Your task to perform on an android device: toggle pop-ups in chrome Image 0: 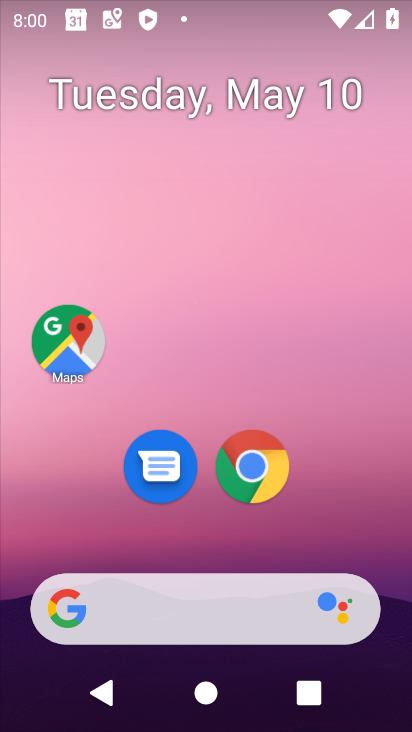
Step 0: click (243, 465)
Your task to perform on an android device: toggle pop-ups in chrome Image 1: 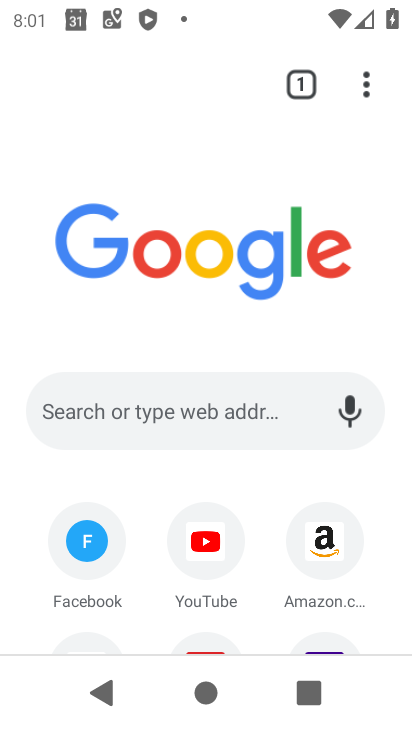
Step 1: click (363, 86)
Your task to perform on an android device: toggle pop-ups in chrome Image 2: 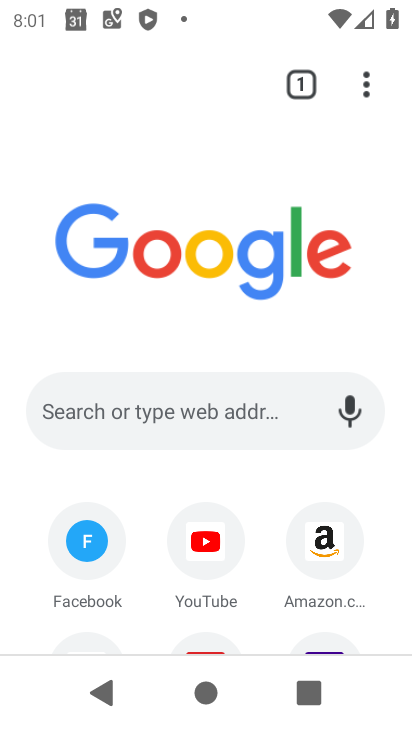
Step 2: click (363, 86)
Your task to perform on an android device: toggle pop-ups in chrome Image 3: 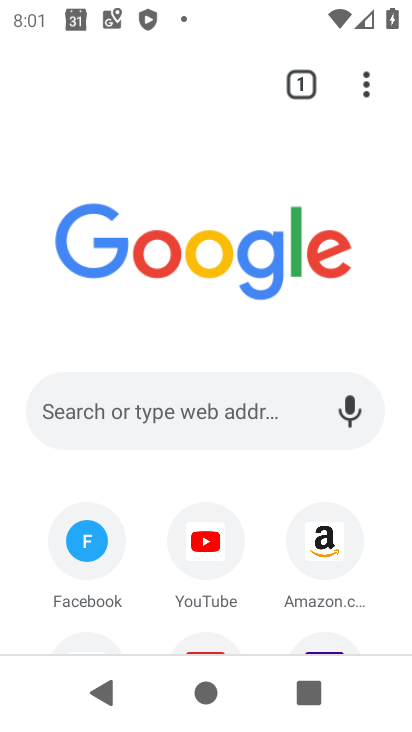
Step 3: click (397, 79)
Your task to perform on an android device: toggle pop-ups in chrome Image 4: 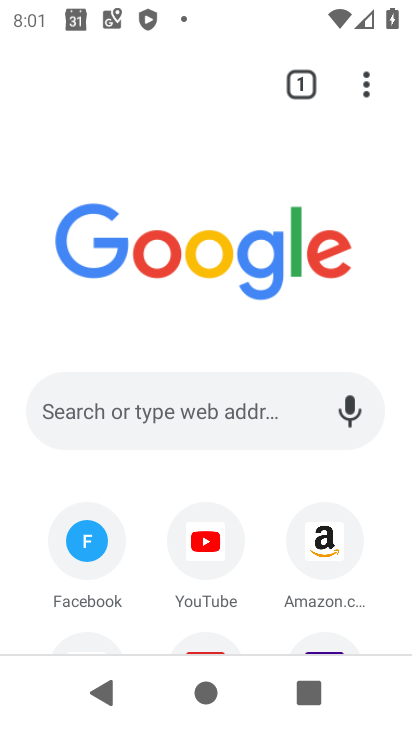
Step 4: click (364, 85)
Your task to perform on an android device: toggle pop-ups in chrome Image 5: 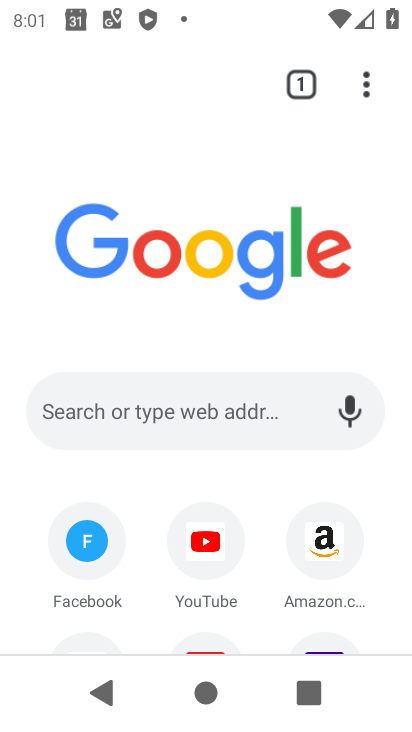
Step 5: click (362, 90)
Your task to perform on an android device: toggle pop-ups in chrome Image 6: 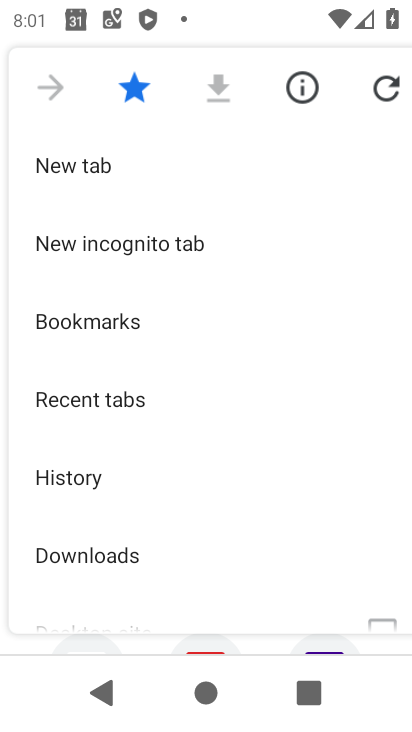
Step 6: drag from (112, 511) to (139, 314)
Your task to perform on an android device: toggle pop-ups in chrome Image 7: 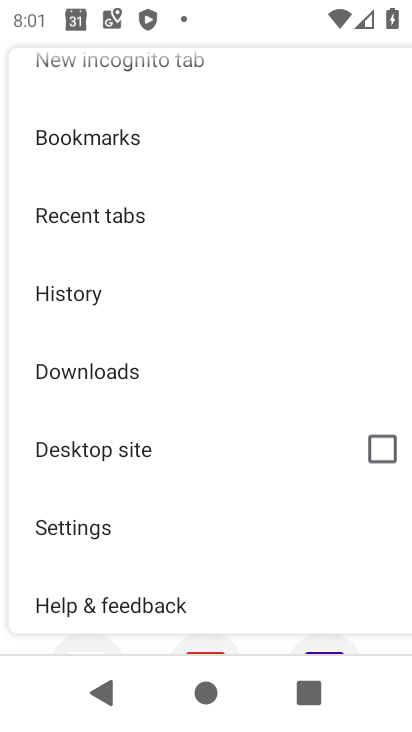
Step 7: click (149, 529)
Your task to perform on an android device: toggle pop-ups in chrome Image 8: 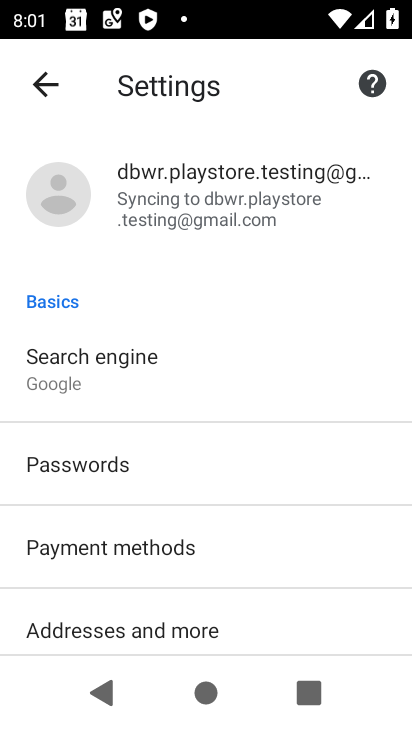
Step 8: drag from (158, 547) to (164, 378)
Your task to perform on an android device: toggle pop-ups in chrome Image 9: 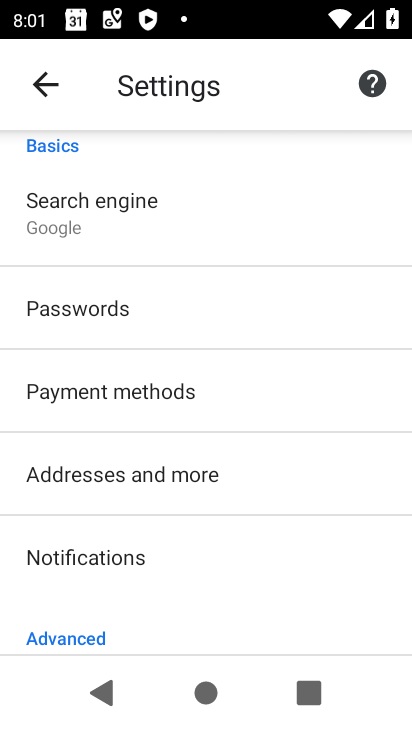
Step 9: drag from (233, 562) to (229, 433)
Your task to perform on an android device: toggle pop-ups in chrome Image 10: 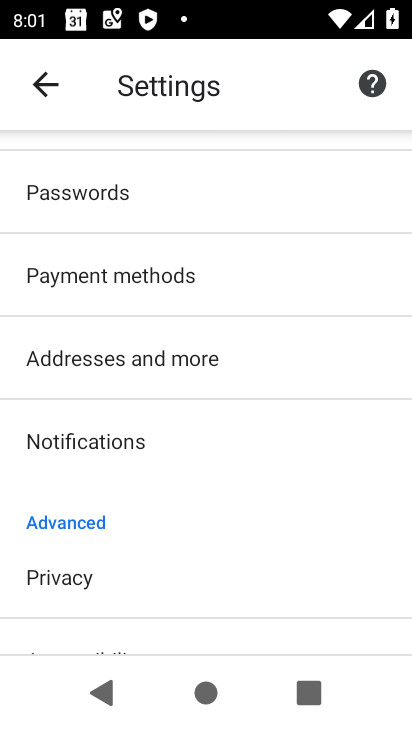
Step 10: drag from (199, 556) to (200, 489)
Your task to perform on an android device: toggle pop-ups in chrome Image 11: 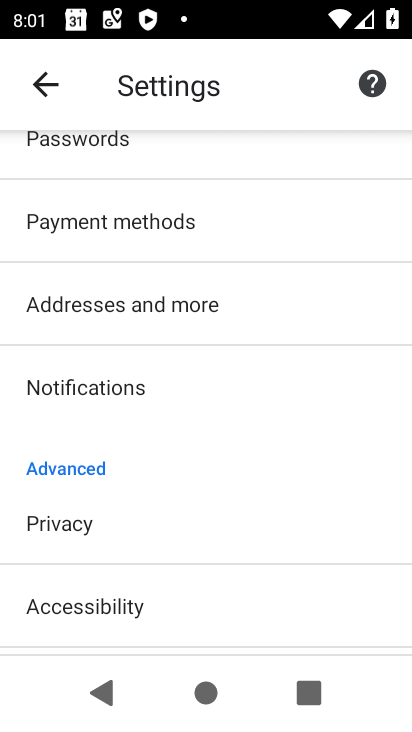
Step 11: drag from (200, 584) to (193, 496)
Your task to perform on an android device: toggle pop-ups in chrome Image 12: 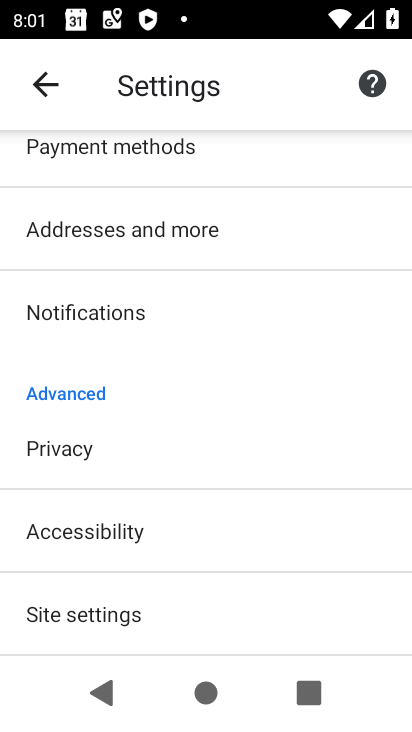
Step 12: drag from (224, 601) to (220, 501)
Your task to perform on an android device: toggle pop-ups in chrome Image 13: 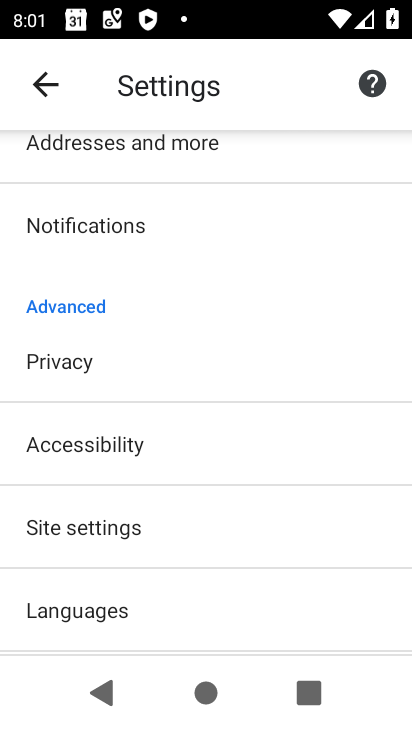
Step 13: click (201, 532)
Your task to perform on an android device: toggle pop-ups in chrome Image 14: 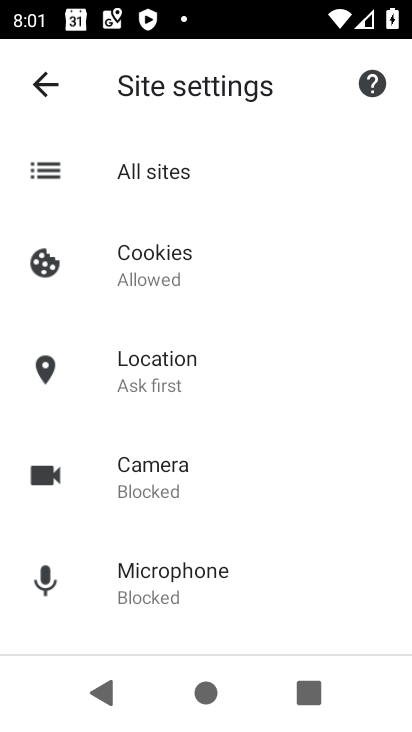
Step 14: drag from (192, 589) to (174, 470)
Your task to perform on an android device: toggle pop-ups in chrome Image 15: 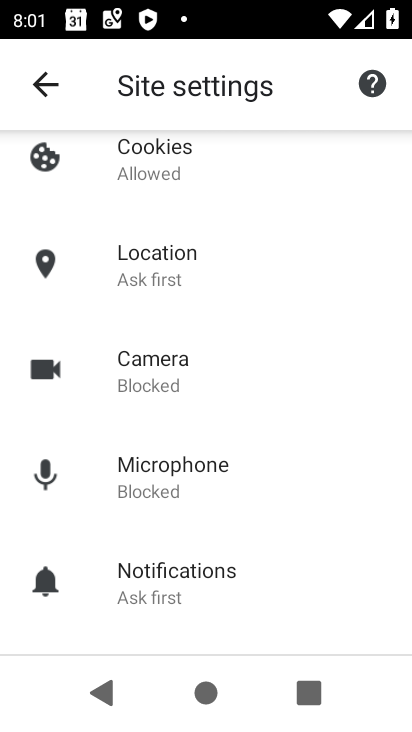
Step 15: drag from (172, 574) to (171, 453)
Your task to perform on an android device: toggle pop-ups in chrome Image 16: 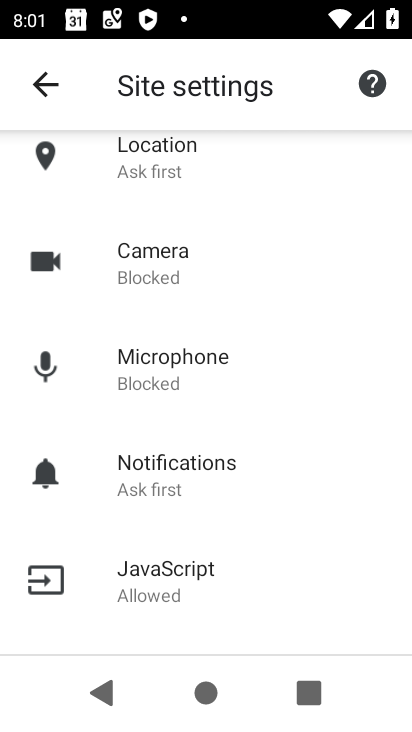
Step 16: drag from (186, 616) to (193, 425)
Your task to perform on an android device: toggle pop-ups in chrome Image 17: 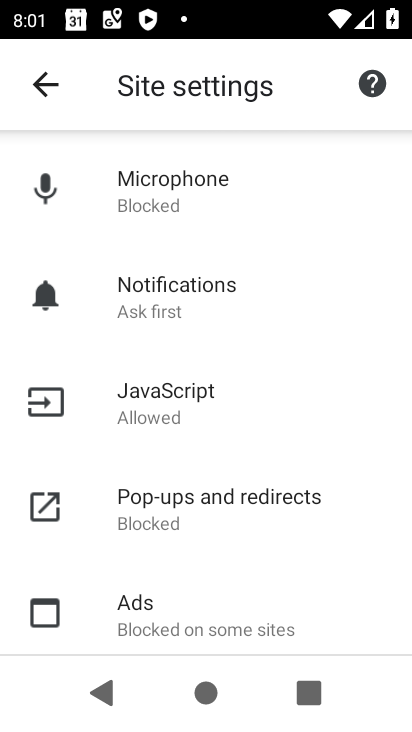
Step 17: click (195, 510)
Your task to perform on an android device: toggle pop-ups in chrome Image 18: 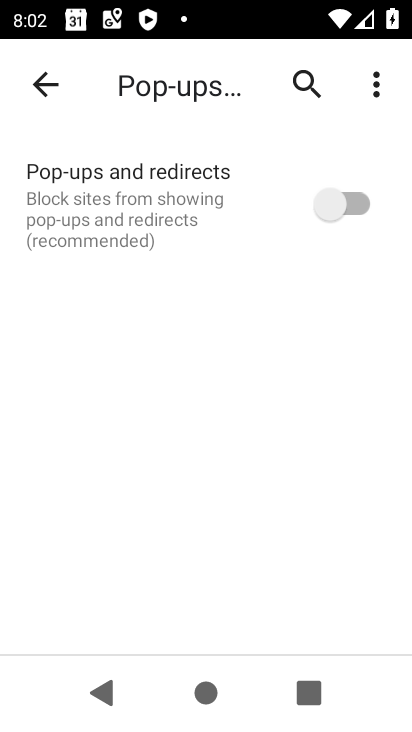
Step 18: click (337, 206)
Your task to perform on an android device: toggle pop-ups in chrome Image 19: 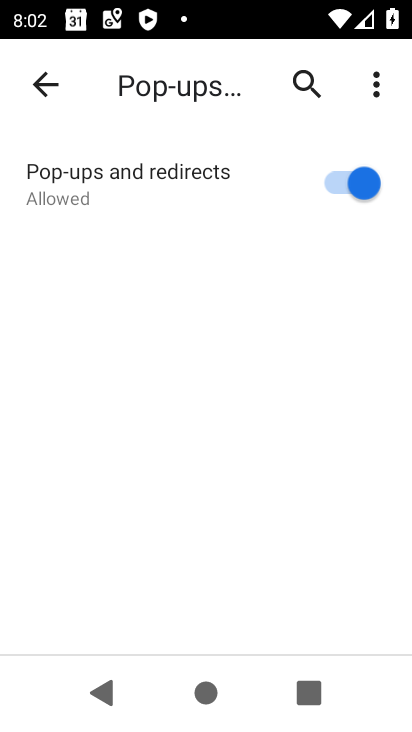
Step 19: task complete